Your task to perform on an android device: Open the map Image 0: 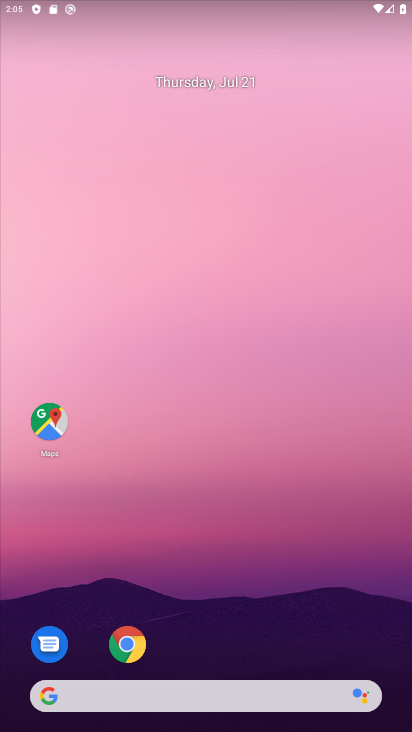
Step 0: drag from (243, 613) to (128, 120)
Your task to perform on an android device: Open the map Image 1: 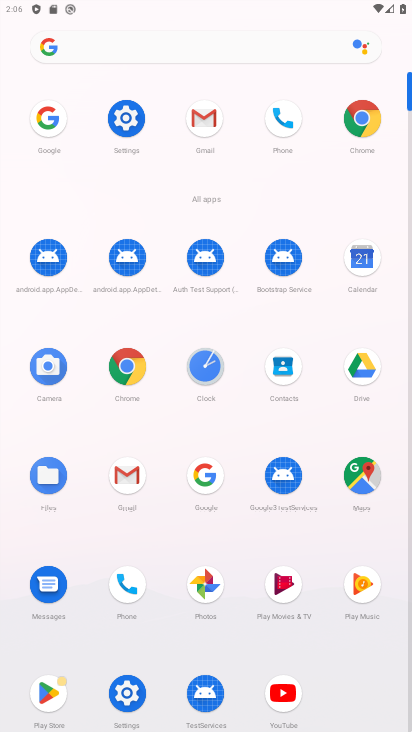
Step 1: click (360, 474)
Your task to perform on an android device: Open the map Image 2: 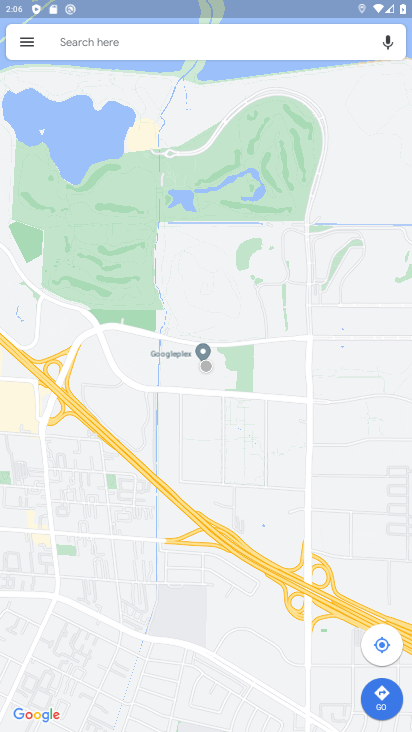
Step 2: task complete